Your task to perform on an android device: visit the assistant section in the google photos Image 0: 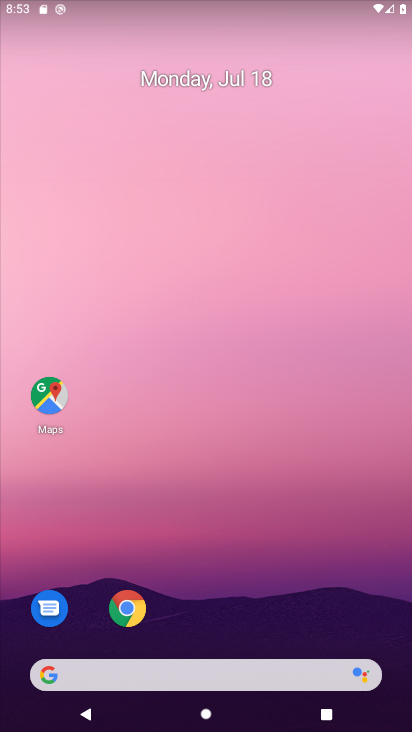
Step 0: drag from (204, 679) to (183, 40)
Your task to perform on an android device: visit the assistant section in the google photos Image 1: 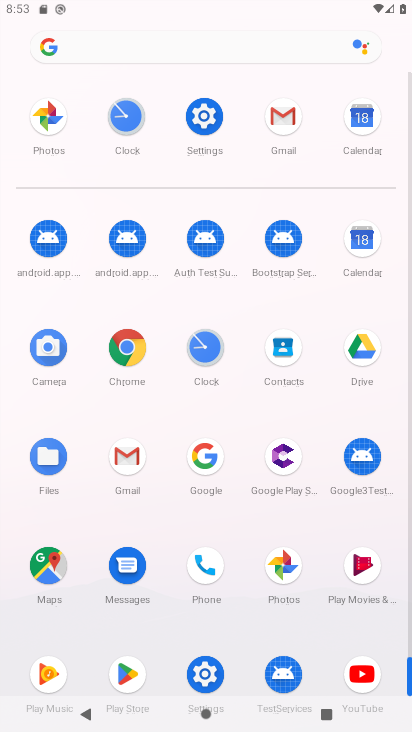
Step 1: click (47, 117)
Your task to perform on an android device: visit the assistant section in the google photos Image 2: 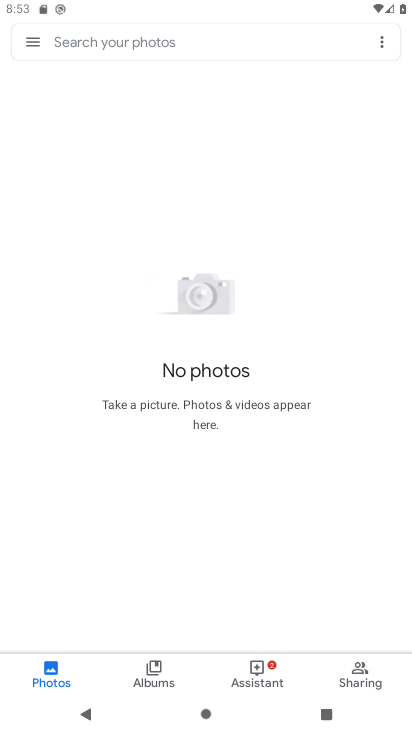
Step 2: click (259, 669)
Your task to perform on an android device: visit the assistant section in the google photos Image 3: 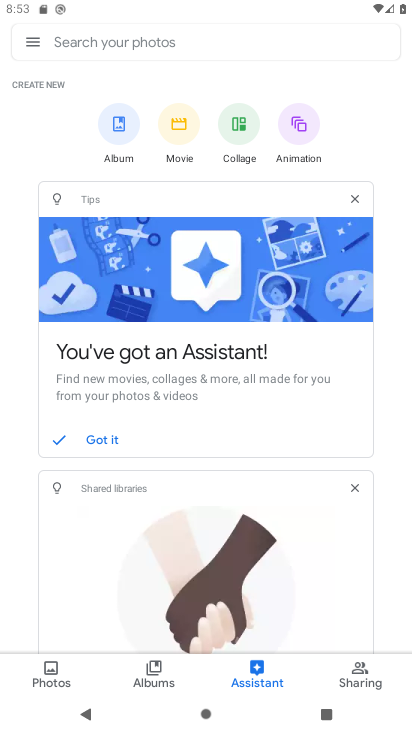
Step 3: task complete